Your task to perform on an android device: Is it going to rain this weekend? Image 0: 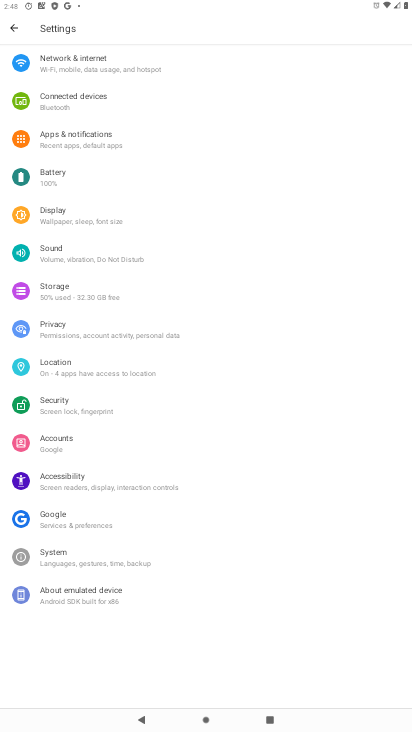
Step 0: press home button
Your task to perform on an android device: Is it going to rain this weekend? Image 1: 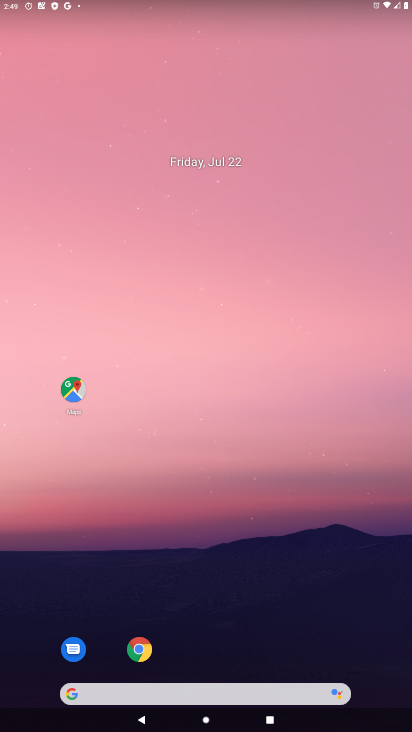
Step 1: drag from (244, 603) to (201, 116)
Your task to perform on an android device: Is it going to rain this weekend? Image 2: 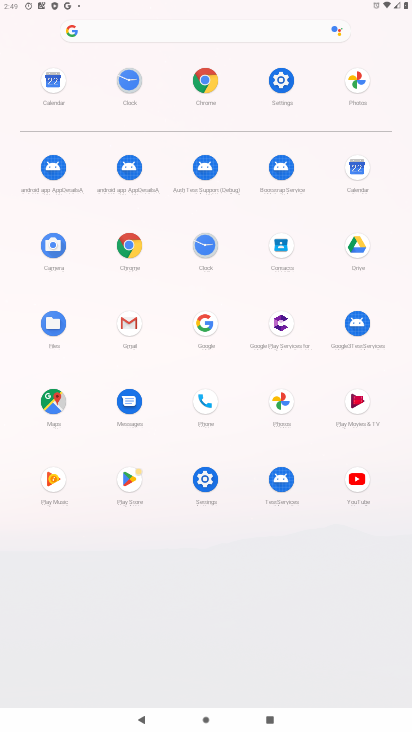
Step 2: click (197, 78)
Your task to perform on an android device: Is it going to rain this weekend? Image 3: 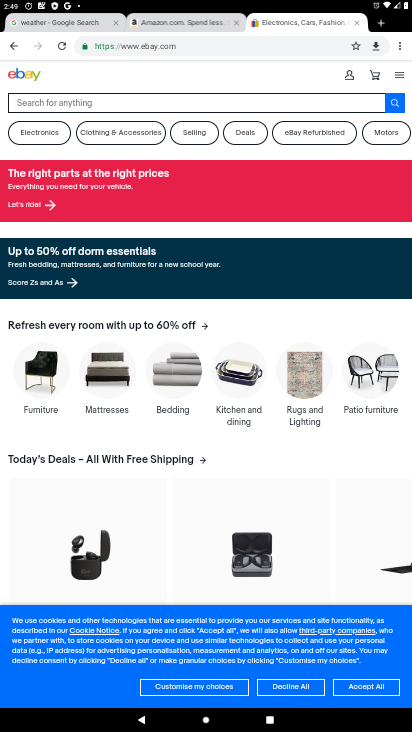
Step 3: click (225, 38)
Your task to perform on an android device: Is it going to rain this weekend? Image 4: 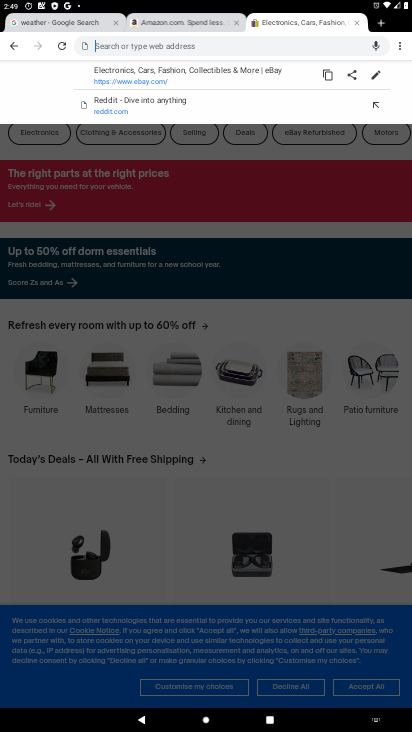
Step 4: type "weather"
Your task to perform on an android device: Is it going to rain this weekend? Image 5: 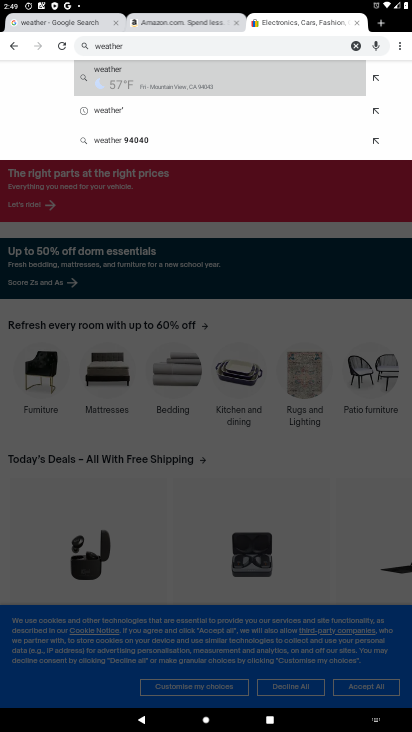
Step 5: click (212, 78)
Your task to perform on an android device: Is it going to rain this weekend? Image 6: 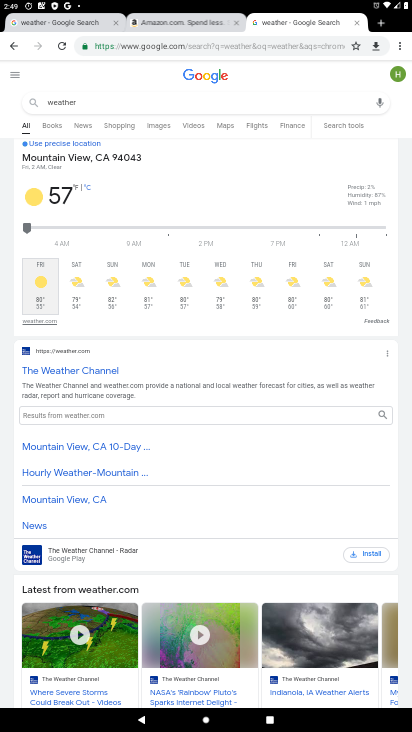
Step 6: click (84, 278)
Your task to perform on an android device: Is it going to rain this weekend? Image 7: 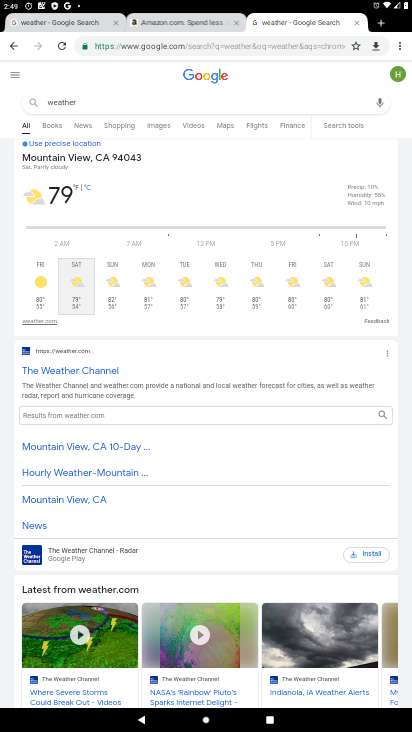
Step 7: task complete